Your task to perform on an android device: Go to Yahoo.com Image 0: 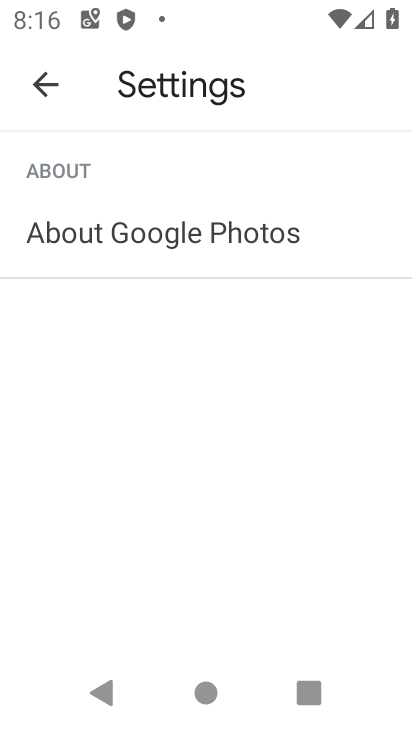
Step 0: press home button
Your task to perform on an android device: Go to Yahoo.com Image 1: 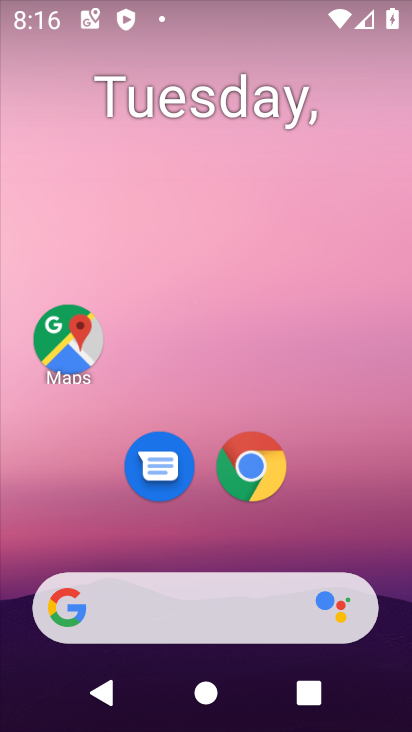
Step 1: drag from (345, 505) to (329, 123)
Your task to perform on an android device: Go to Yahoo.com Image 2: 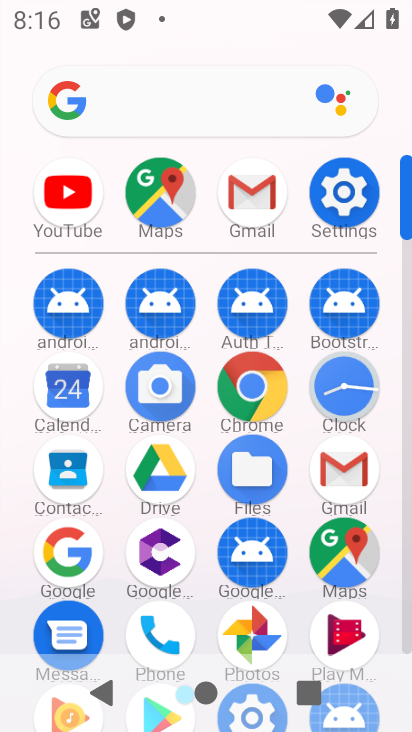
Step 2: click (259, 403)
Your task to perform on an android device: Go to Yahoo.com Image 3: 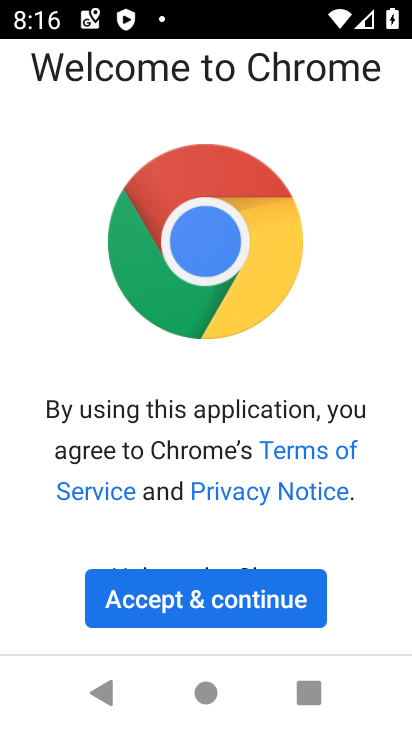
Step 3: click (129, 583)
Your task to perform on an android device: Go to Yahoo.com Image 4: 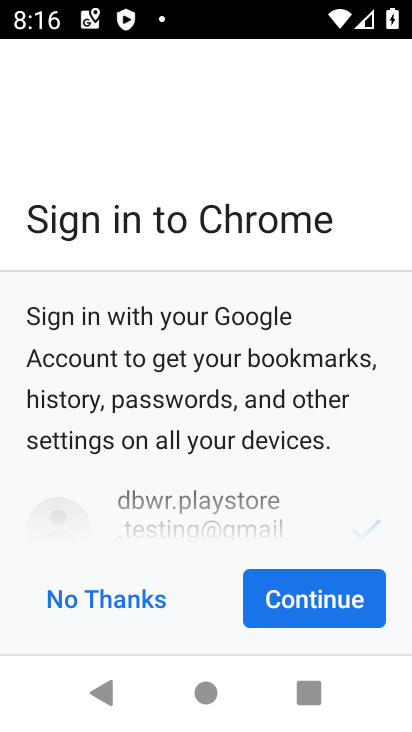
Step 4: click (313, 610)
Your task to perform on an android device: Go to Yahoo.com Image 5: 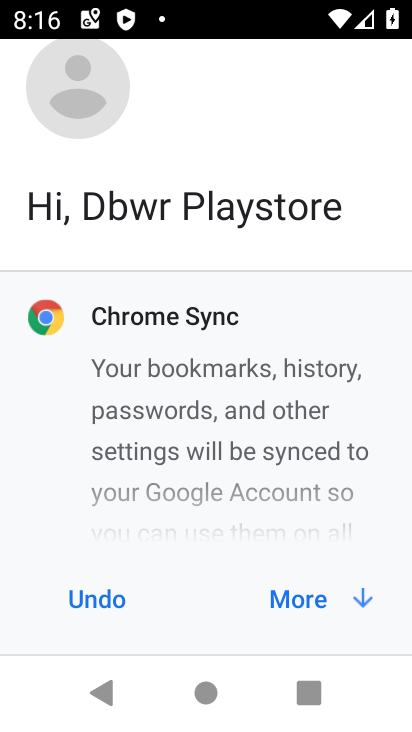
Step 5: click (313, 610)
Your task to perform on an android device: Go to Yahoo.com Image 6: 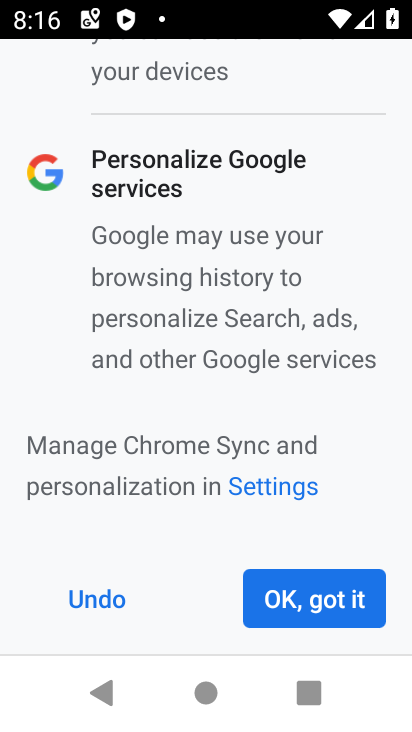
Step 6: click (313, 610)
Your task to perform on an android device: Go to Yahoo.com Image 7: 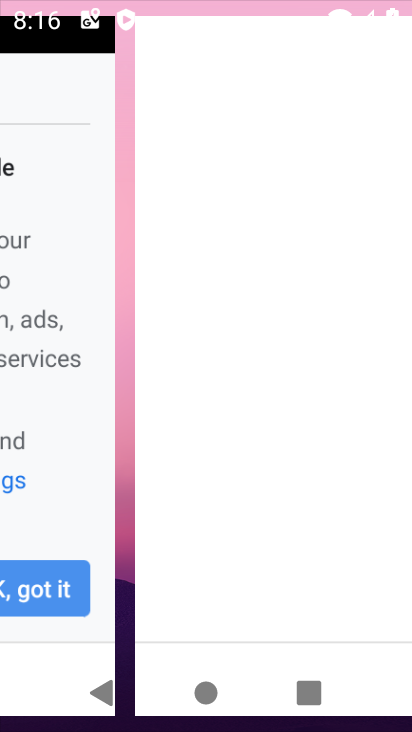
Step 7: click (313, 610)
Your task to perform on an android device: Go to Yahoo.com Image 8: 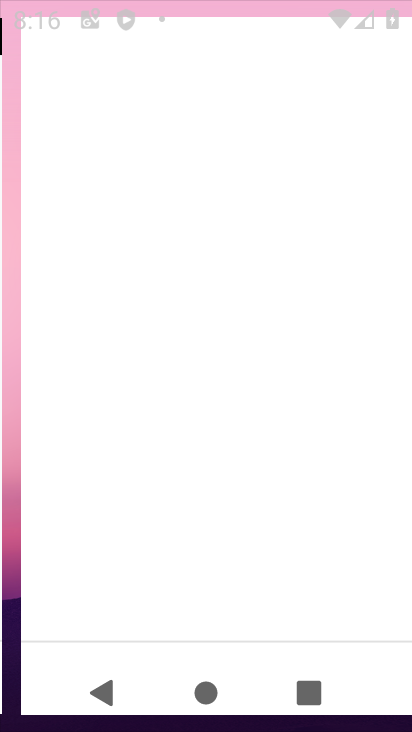
Step 8: click (313, 610)
Your task to perform on an android device: Go to Yahoo.com Image 9: 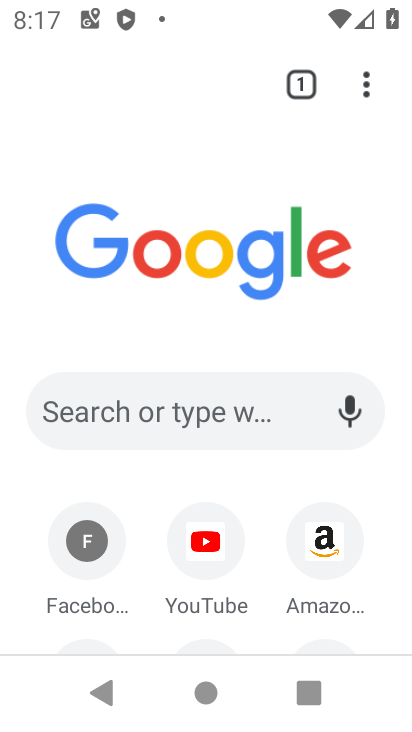
Step 9: drag from (274, 299) to (283, 167)
Your task to perform on an android device: Go to Yahoo.com Image 10: 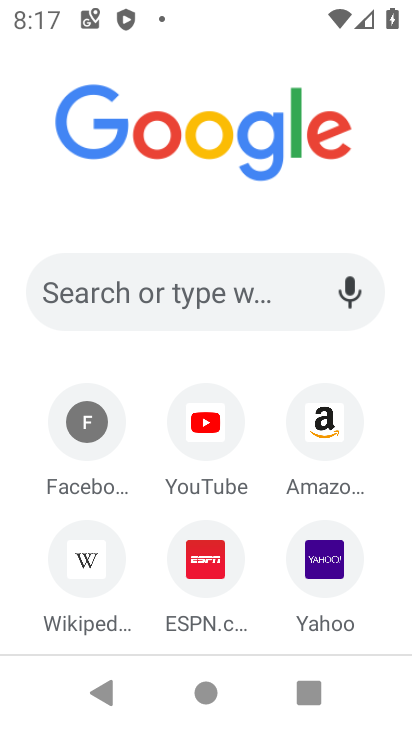
Step 10: click (340, 552)
Your task to perform on an android device: Go to Yahoo.com Image 11: 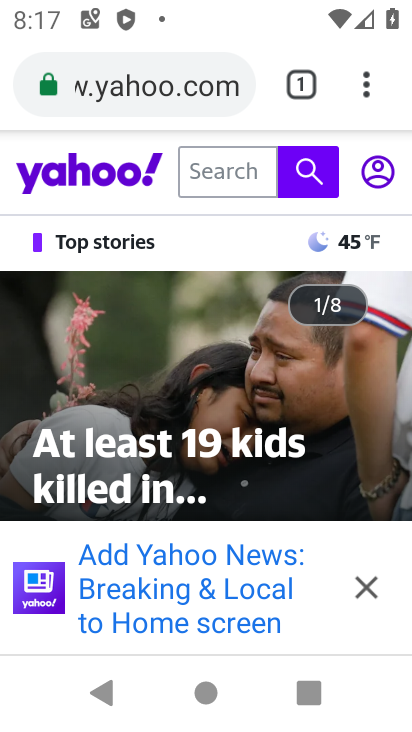
Step 11: task complete